Your task to perform on an android device: toggle notifications settings in the gmail app Image 0: 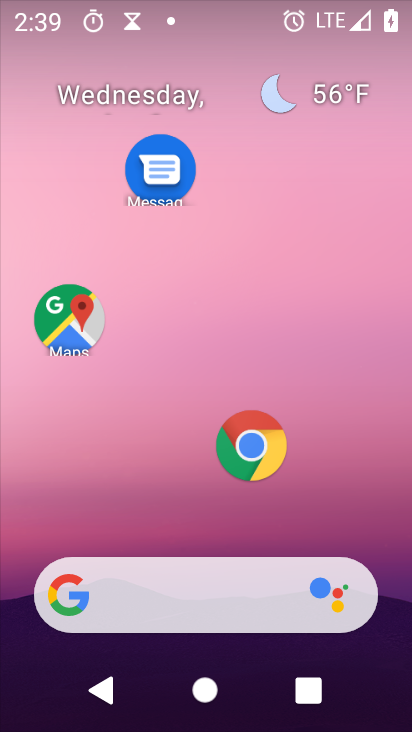
Step 0: click (3, 620)
Your task to perform on an android device: toggle notifications settings in the gmail app Image 1: 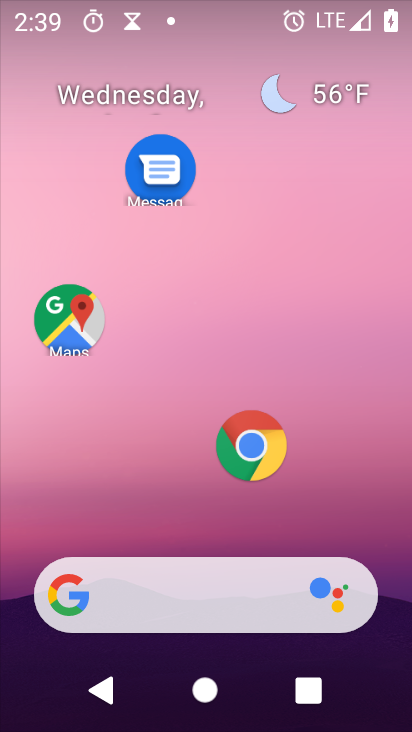
Step 1: drag from (186, 521) to (282, 88)
Your task to perform on an android device: toggle notifications settings in the gmail app Image 2: 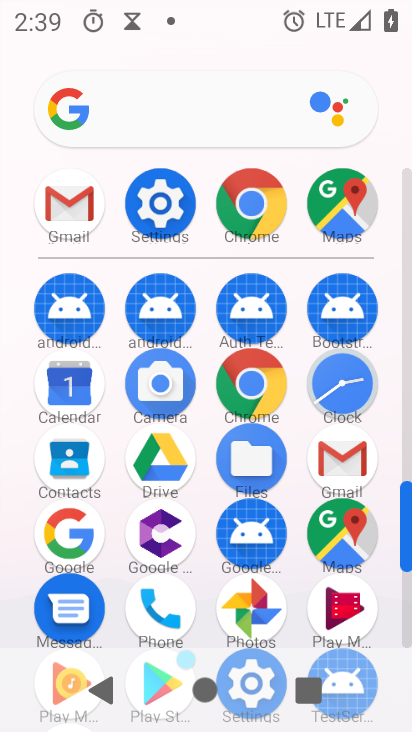
Step 2: click (349, 460)
Your task to perform on an android device: toggle notifications settings in the gmail app Image 3: 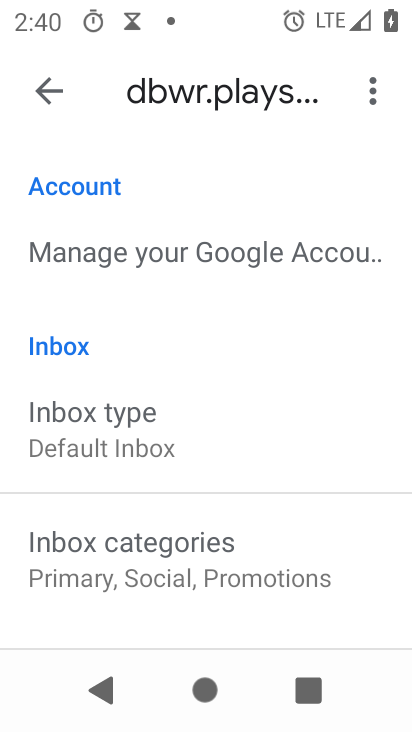
Step 3: drag from (136, 561) to (196, 227)
Your task to perform on an android device: toggle notifications settings in the gmail app Image 4: 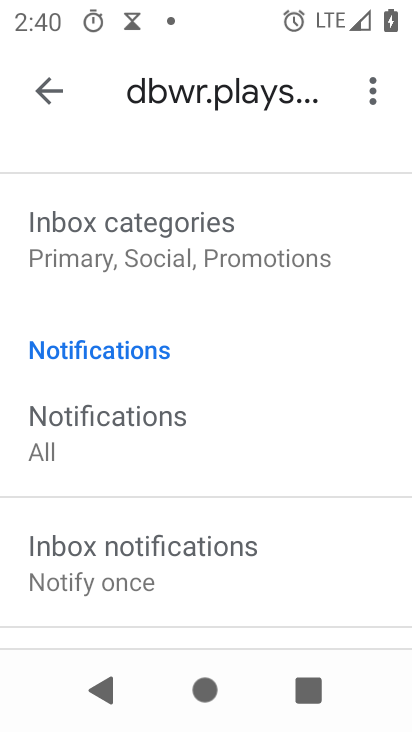
Step 4: drag from (175, 544) to (188, 299)
Your task to perform on an android device: toggle notifications settings in the gmail app Image 5: 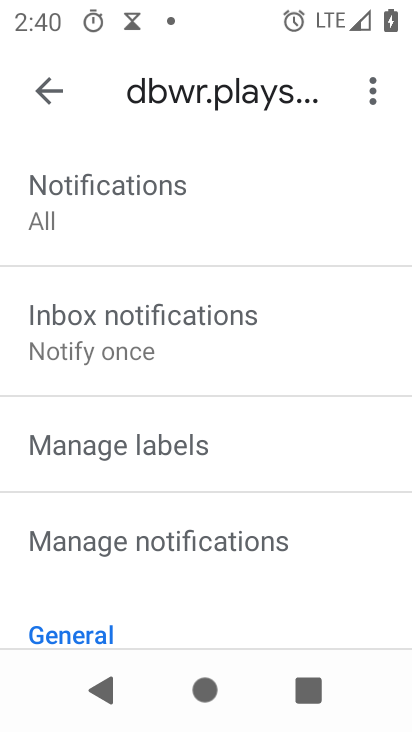
Step 5: click (260, 538)
Your task to perform on an android device: toggle notifications settings in the gmail app Image 6: 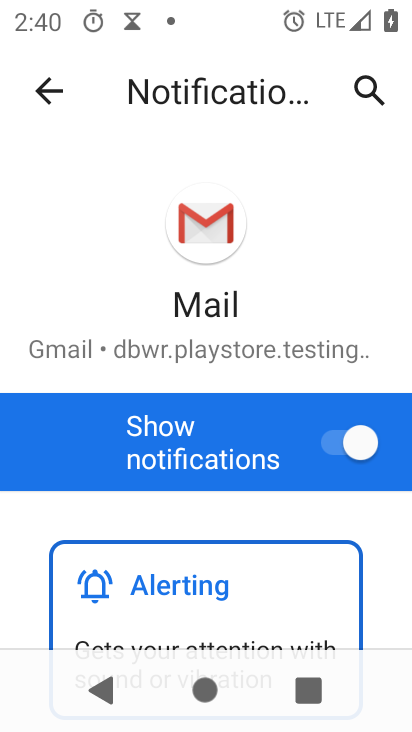
Step 6: click (348, 453)
Your task to perform on an android device: toggle notifications settings in the gmail app Image 7: 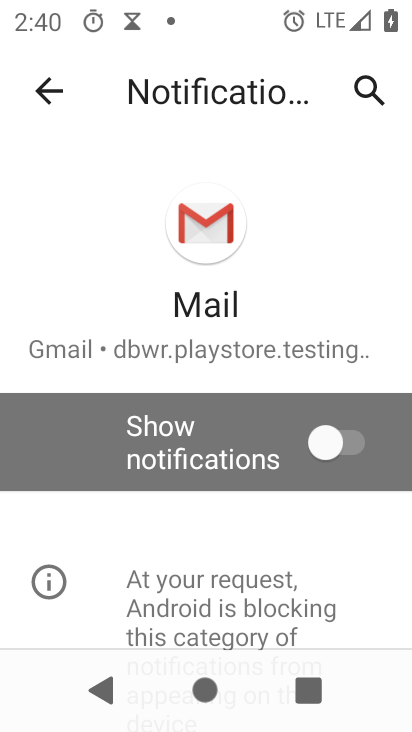
Step 7: task complete